Your task to perform on an android device: turn on translation in the chrome app Image 0: 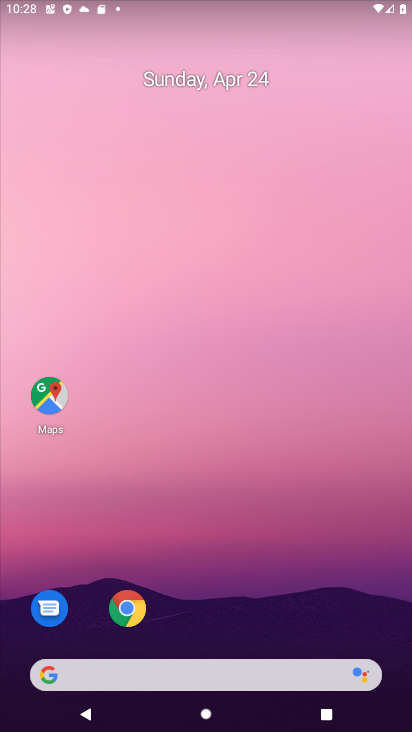
Step 0: drag from (239, 546) to (284, 46)
Your task to perform on an android device: turn on translation in the chrome app Image 1: 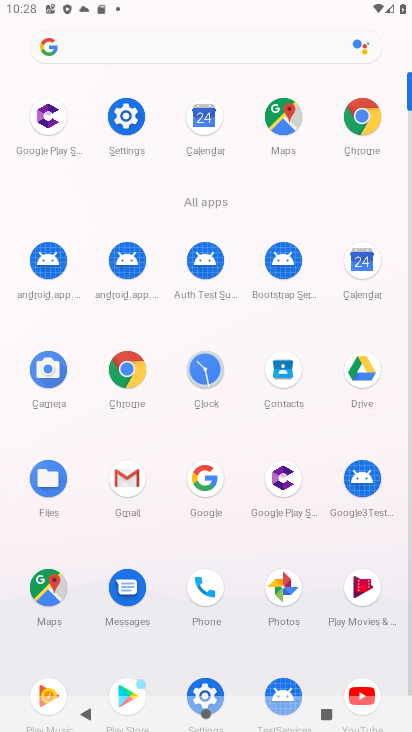
Step 1: click (119, 364)
Your task to perform on an android device: turn on translation in the chrome app Image 2: 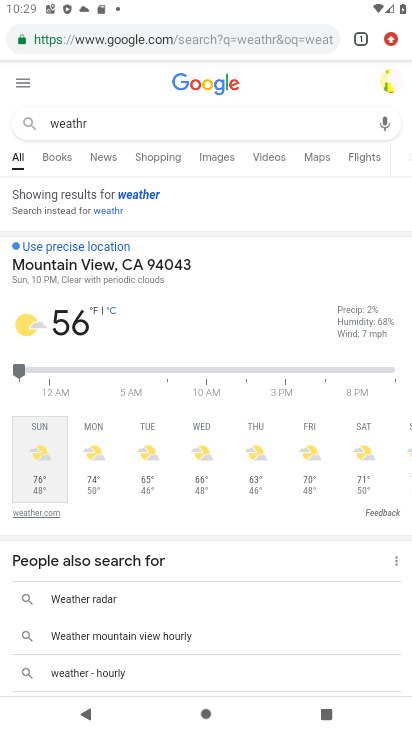
Step 2: drag from (405, 36) to (274, 482)
Your task to perform on an android device: turn on translation in the chrome app Image 3: 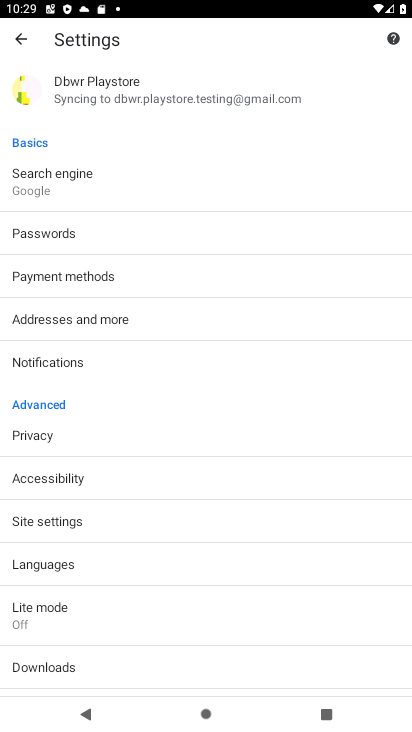
Step 3: click (81, 558)
Your task to perform on an android device: turn on translation in the chrome app Image 4: 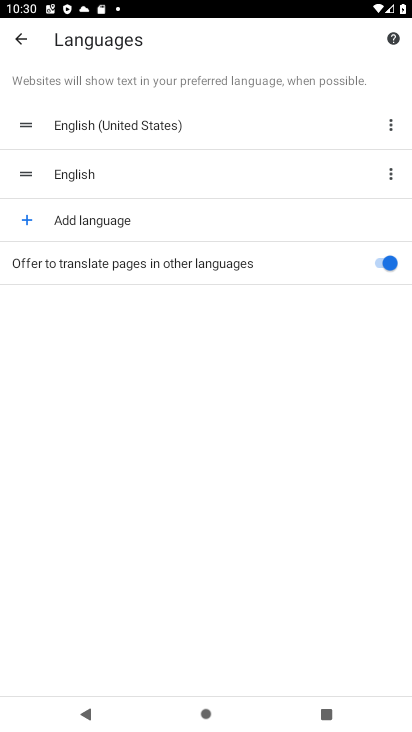
Step 4: task complete